Your task to perform on an android device: Turn on the flashlight Image 0: 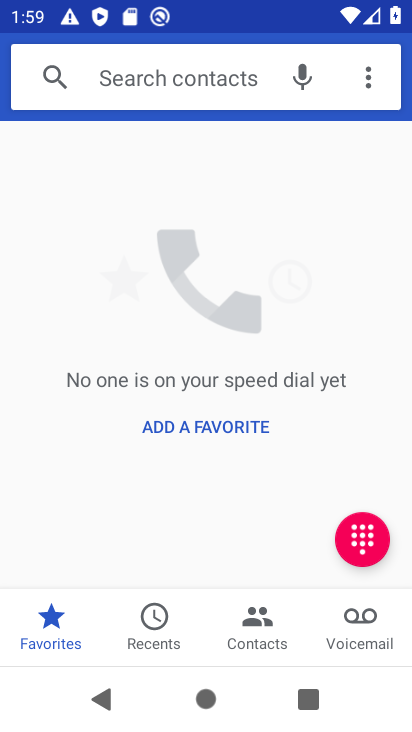
Step 0: press home button
Your task to perform on an android device: Turn on the flashlight Image 1: 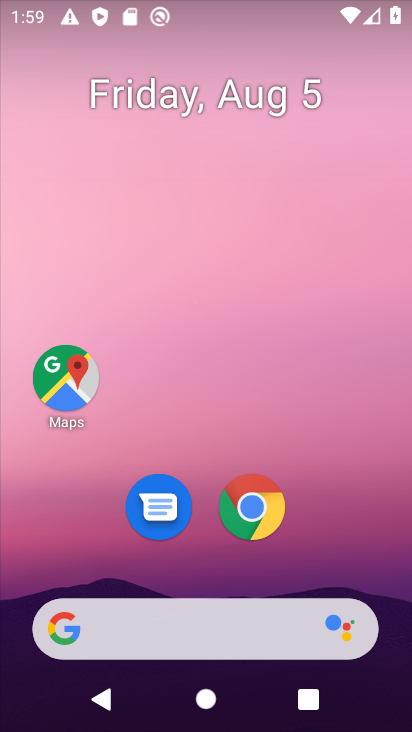
Step 1: drag from (340, 533) to (248, 131)
Your task to perform on an android device: Turn on the flashlight Image 2: 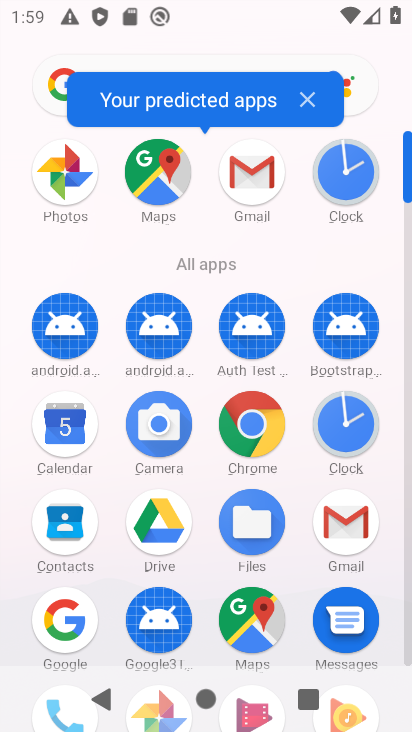
Step 2: drag from (199, 558) to (160, 142)
Your task to perform on an android device: Turn on the flashlight Image 3: 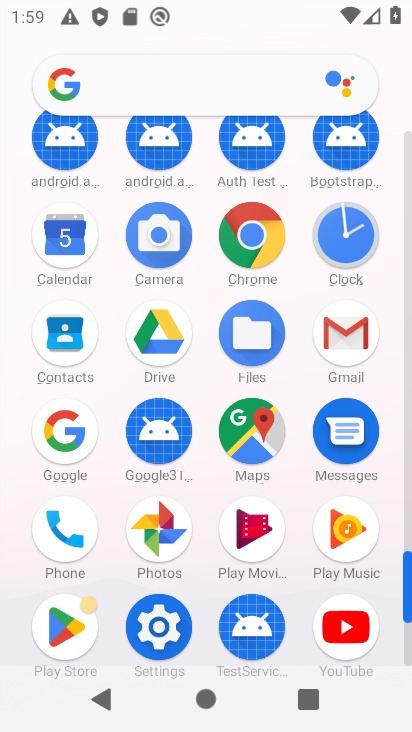
Step 3: click (165, 603)
Your task to perform on an android device: Turn on the flashlight Image 4: 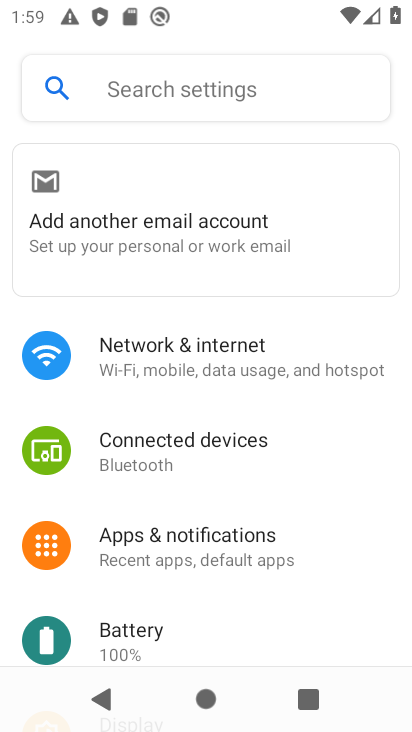
Step 4: task complete